Your task to perform on an android device: add a contact in the contacts app Image 0: 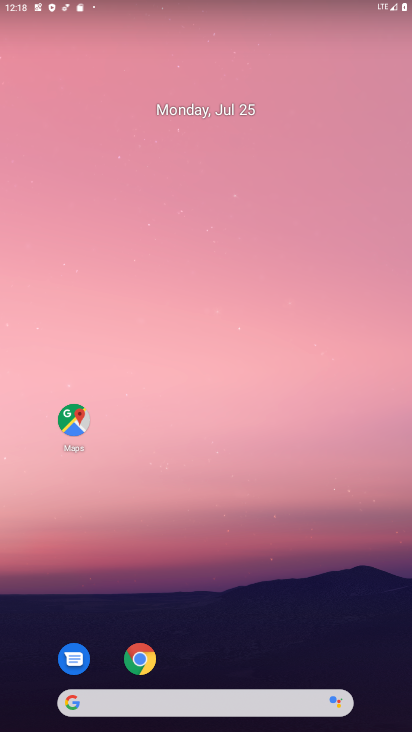
Step 0: drag from (16, 704) to (206, 252)
Your task to perform on an android device: add a contact in the contacts app Image 1: 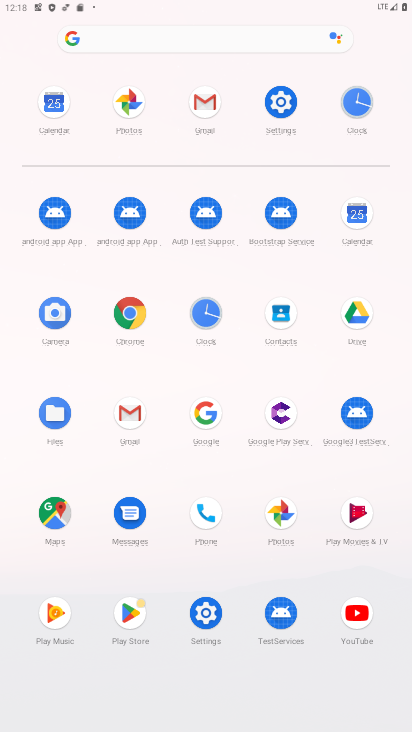
Step 1: click (267, 323)
Your task to perform on an android device: add a contact in the contacts app Image 2: 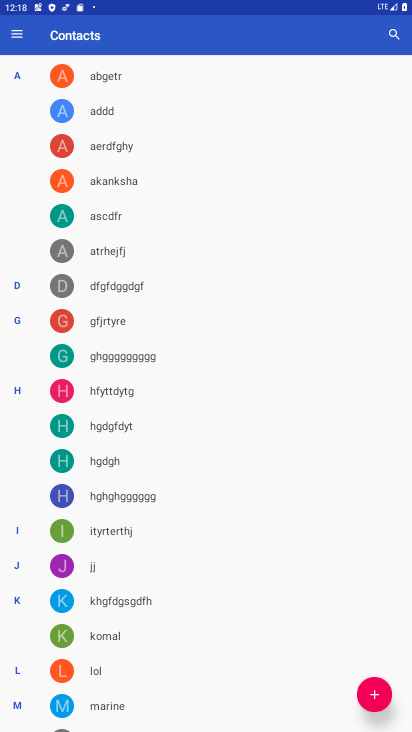
Step 2: click (392, 693)
Your task to perform on an android device: add a contact in the contacts app Image 3: 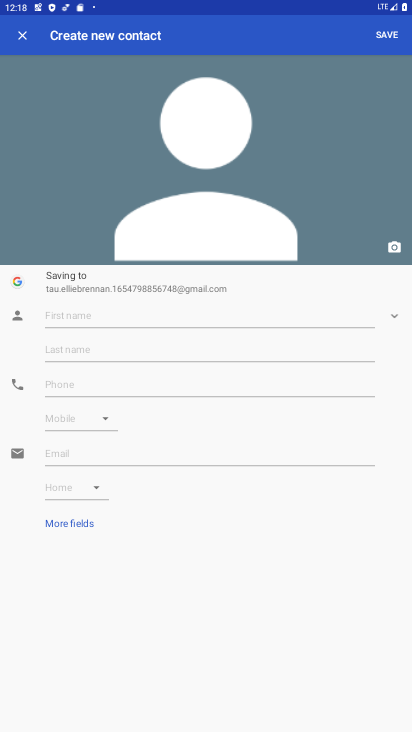
Step 3: click (83, 319)
Your task to perform on an android device: add a contact in the contacts app Image 4: 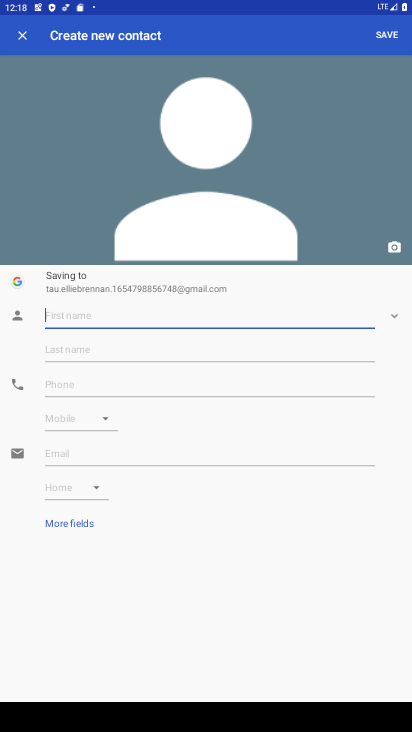
Step 4: type "fgd464htg"
Your task to perform on an android device: add a contact in the contacts app Image 5: 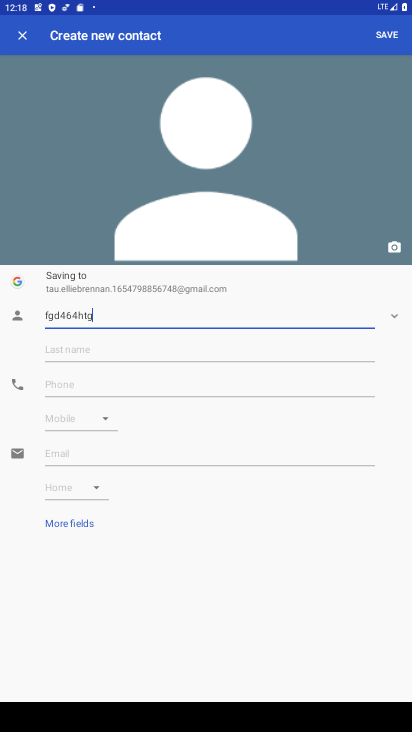
Step 5: type ""
Your task to perform on an android device: add a contact in the contacts app Image 6: 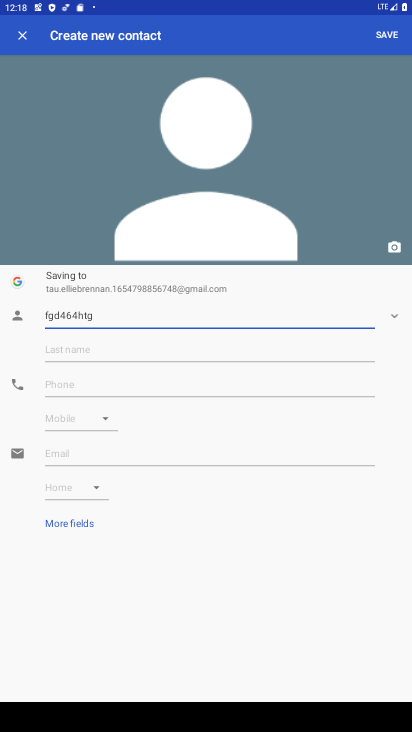
Step 6: click (388, 27)
Your task to perform on an android device: add a contact in the contacts app Image 7: 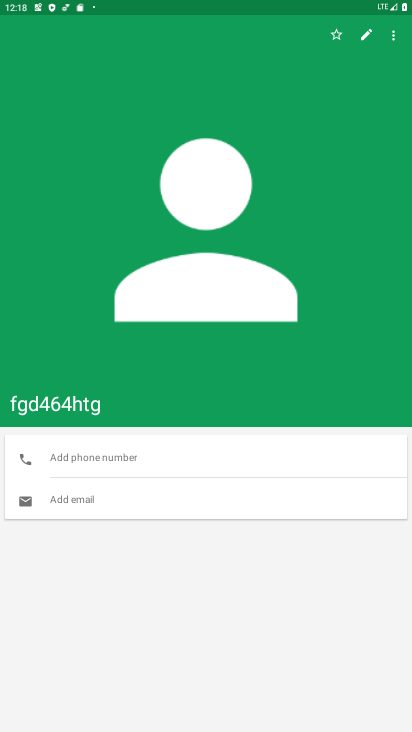
Step 7: task complete